Your task to perform on an android device: check battery use Image 0: 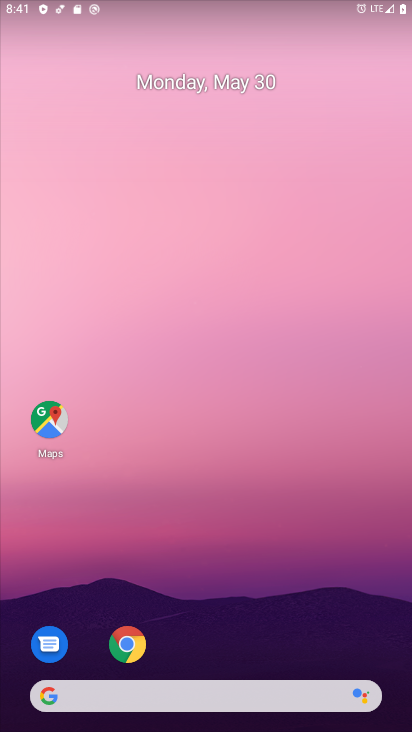
Step 0: drag from (388, 649) to (318, 74)
Your task to perform on an android device: check battery use Image 1: 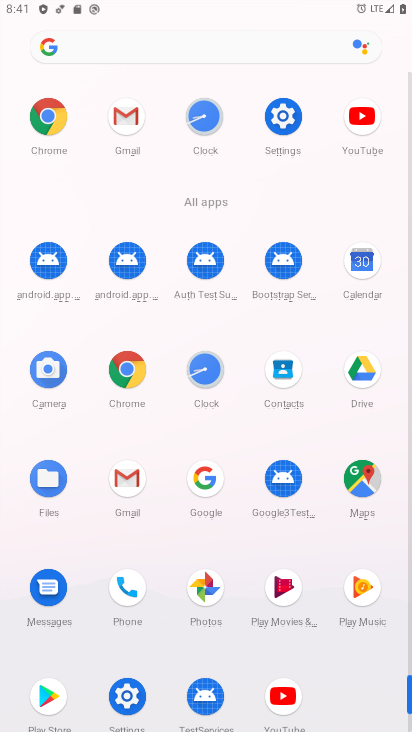
Step 1: click (409, 659)
Your task to perform on an android device: check battery use Image 2: 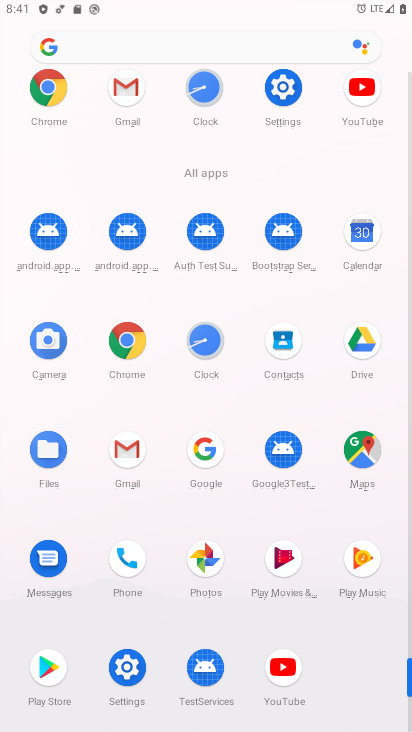
Step 2: click (128, 667)
Your task to perform on an android device: check battery use Image 3: 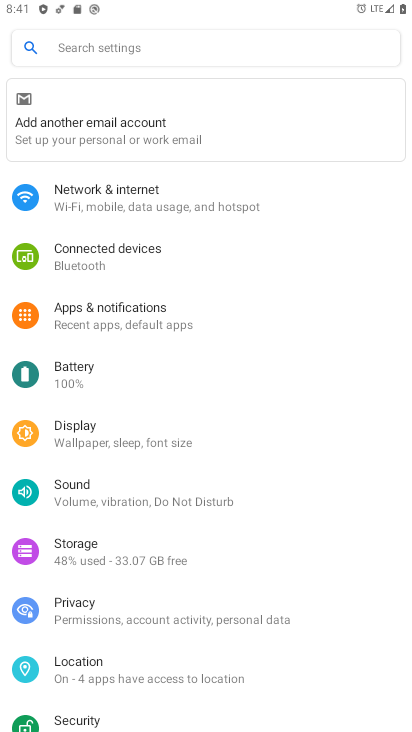
Step 3: click (68, 362)
Your task to perform on an android device: check battery use Image 4: 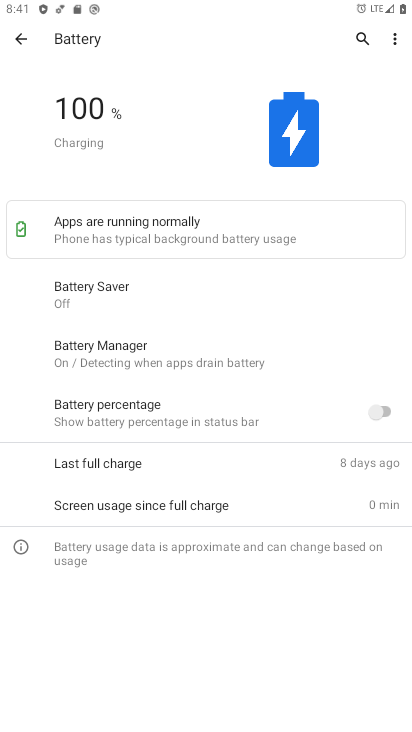
Step 4: click (394, 43)
Your task to perform on an android device: check battery use Image 5: 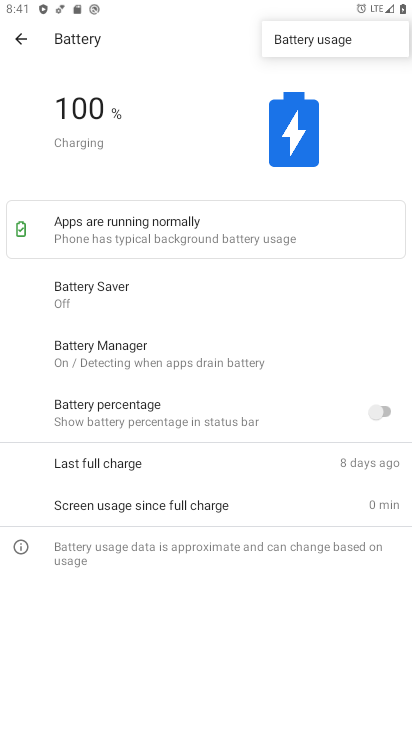
Step 5: click (316, 30)
Your task to perform on an android device: check battery use Image 6: 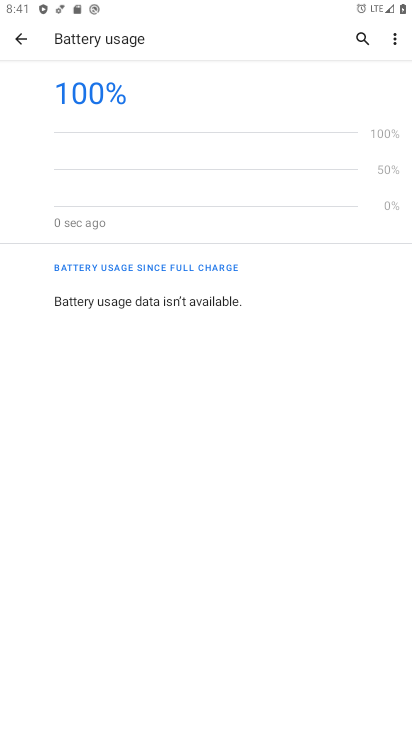
Step 6: task complete